Your task to perform on an android device: turn on javascript in the chrome app Image 0: 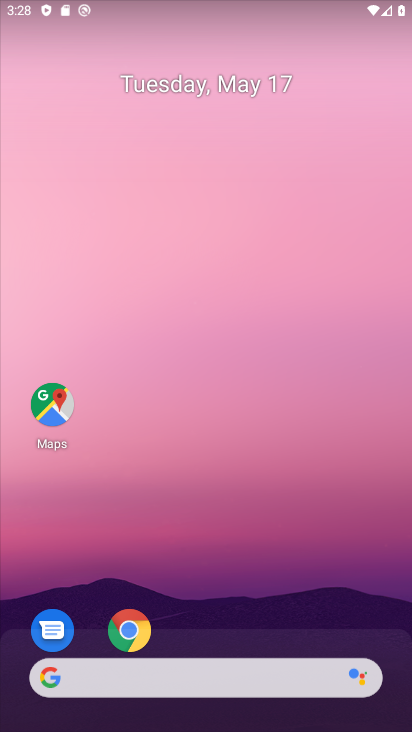
Step 0: click (128, 641)
Your task to perform on an android device: turn on javascript in the chrome app Image 1: 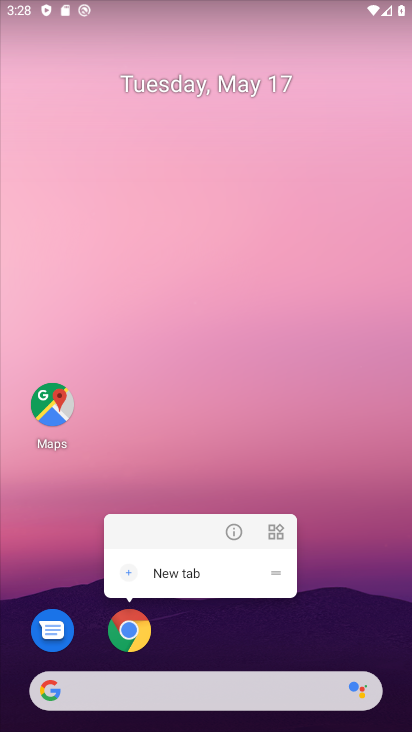
Step 1: click (132, 626)
Your task to perform on an android device: turn on javascript in the chrome app Image 2: 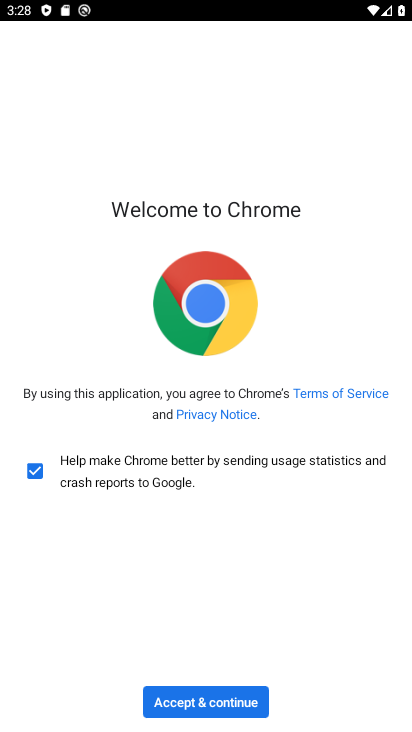
Step 2: click (222, 703)
Your task to perform on an android device: turn on javascript in the chrome app Image 3: 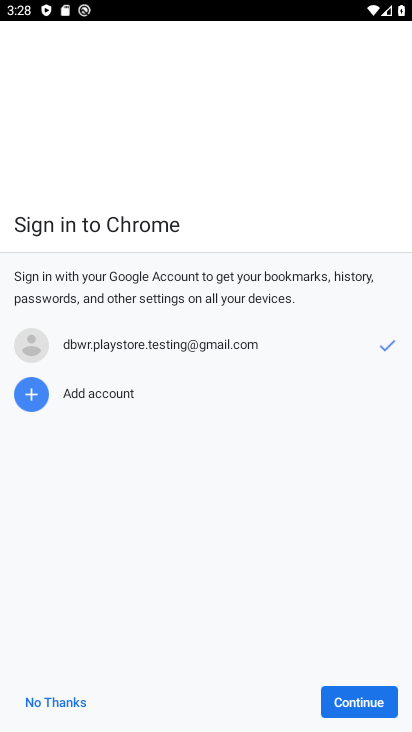
Step 3: click (351, 702)
Your task to perform on an android device: turn on javascript in the chrome app Image 4: 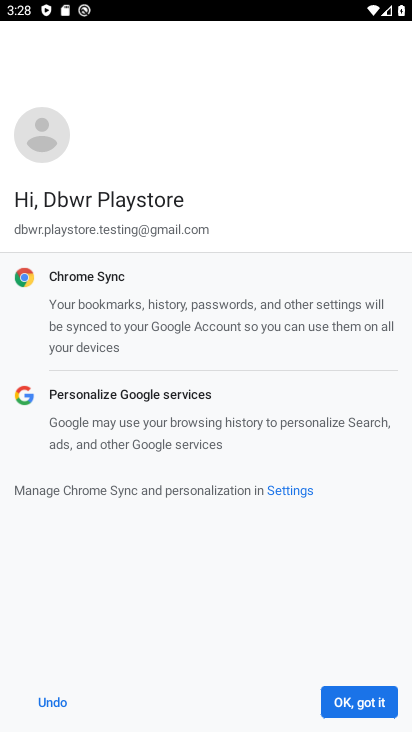
Step 4: click (356, 702)
Your task to perform on an android device: turn on javascript in the chrome app Image 5: 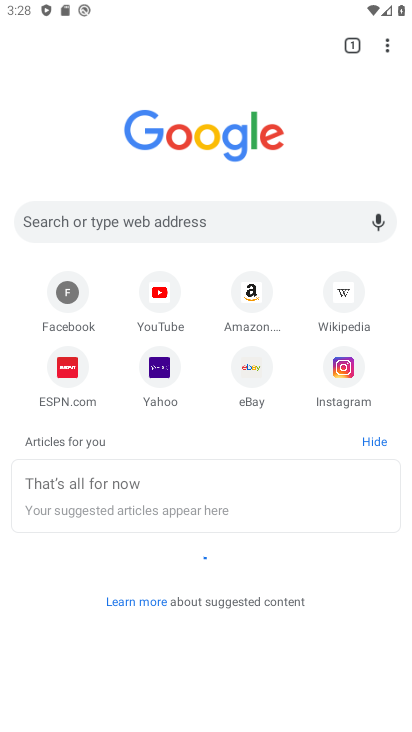
Step 5: drag from (383, 46) to (305, 374)
Your task to perform on an android device: turn on javascript in the chrome app Image 6: 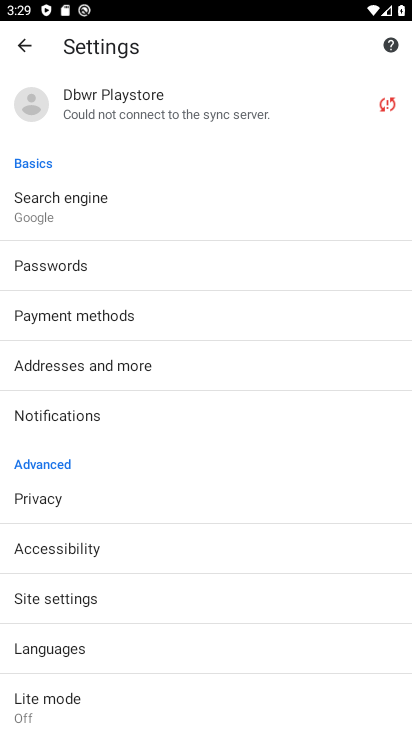
Step 6: drag from (129, 658) to (203, 448)
Your task to perform on an android device: turn on javascript in the chrome app Image 7: 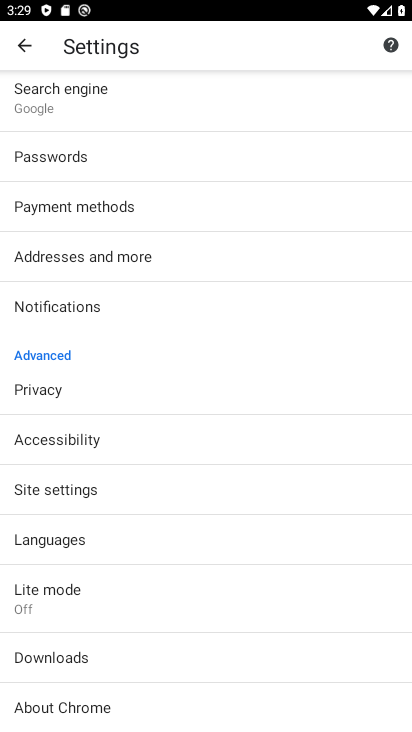
Step 7: click (128, 497)
Your task to perform on an android device: turn on javascript in the chrome app Image 8: 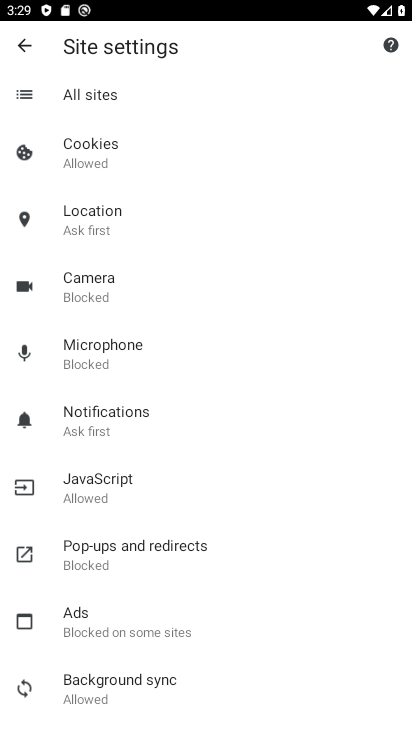
Step 8: click (203, 501)
Your task to perform on an android device: turn on javascript in the chrome app Image 9: 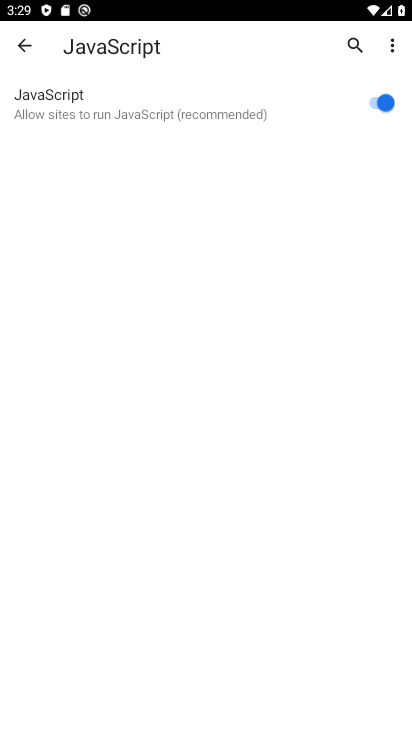
Step 9: task complete